Your task to perform on an android device: turn on showing notifications on the lock screen Image 0: 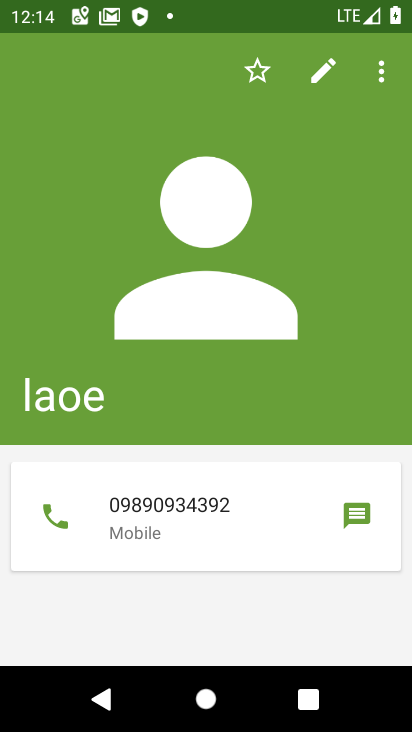
Step 0: press home button
Your task to perform on an android device: turn on showing notifications on the lock screen Image 1: 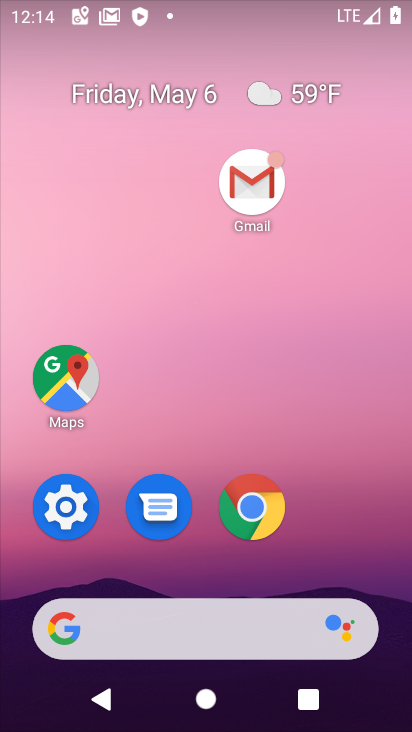
Step 1: drag from (353, 465) to (276, 7)
Your task to perform on an android device: turn on showing notifications on the lock screen Image 2: 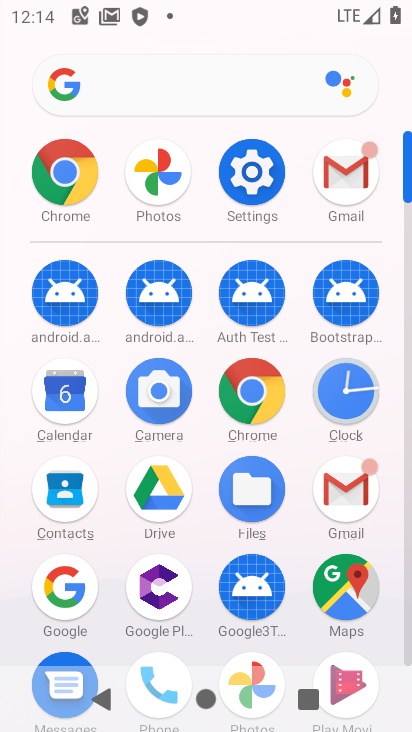
Step 2: click (251, 171)
Your task to perform on an android device: turn on showing notifications on the lock screen Image 3: 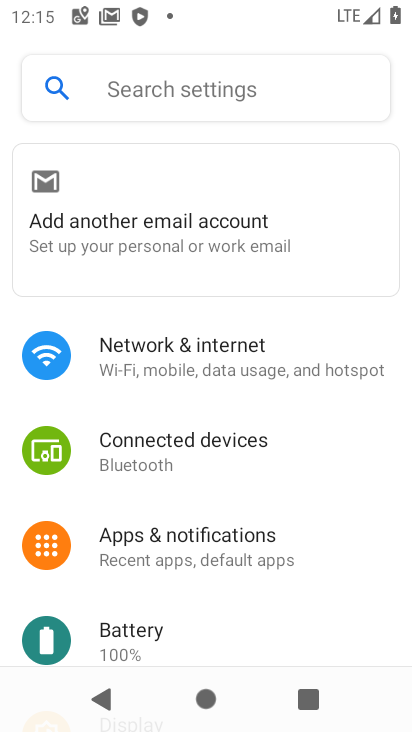
Step 3: drag from (266, 489) to (183, 124)
Your task to perform on an android device: turn on showing notifications on the lock screen Image 4: 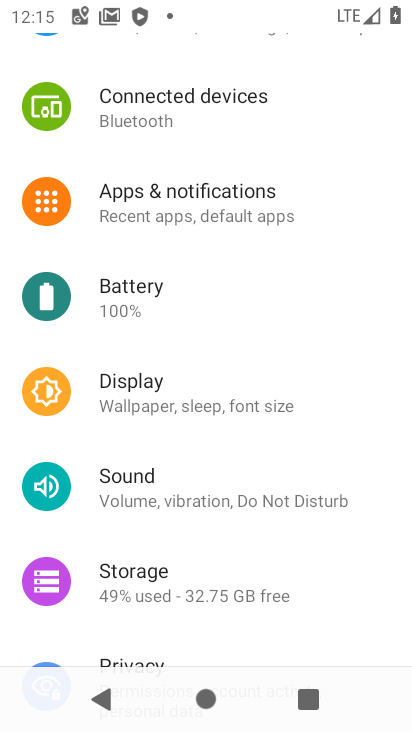
Step 4: click (227, 185)
Your task to perform on an android device: turn on showing notifications on the lock screen Image 5: 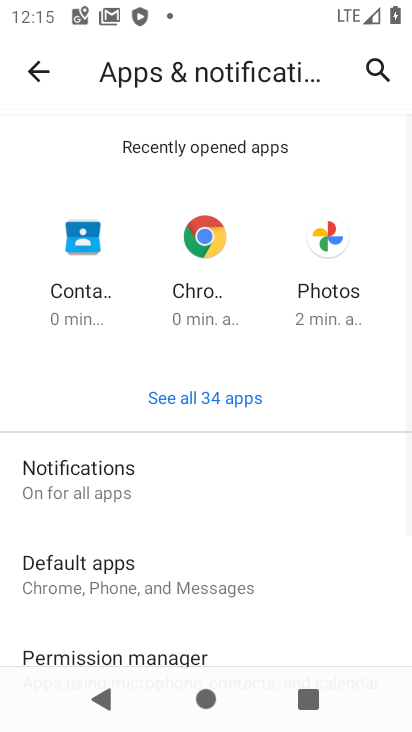
Step 5: click (90, 468)
Your task to perform on an android device: turn on showing notifications on the lock screen Image 6: 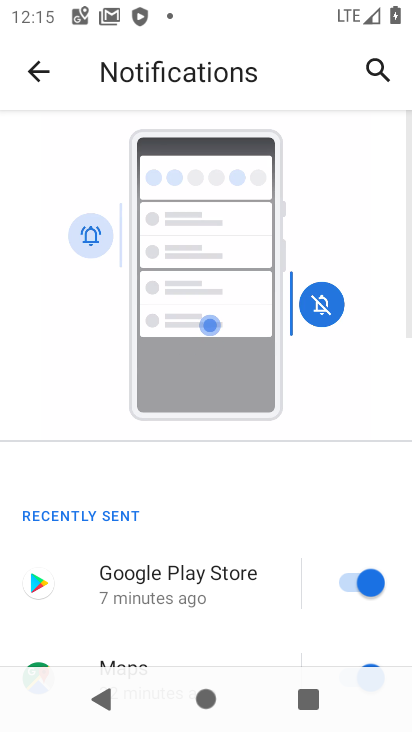
Step 6: drag from (222, 486) to (163, 98)
Your task to perform on an android device: turn on showing notifications on the lock screen Image 7: 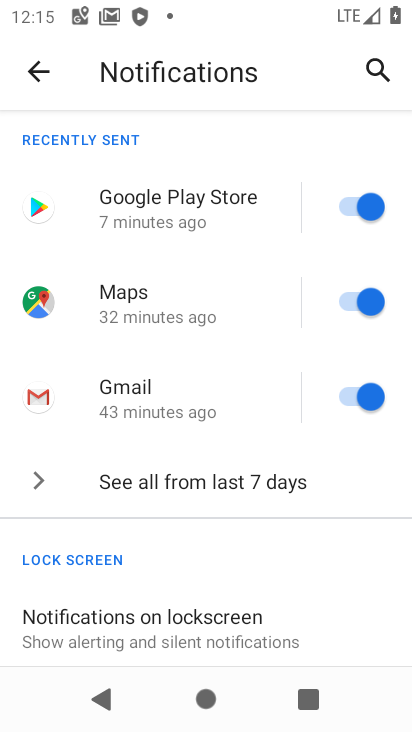
Step 7: drag from (256, 539) to (217, 213)
Your task to perform on an android device: turn on showing notifications on the lock screen Image 8: 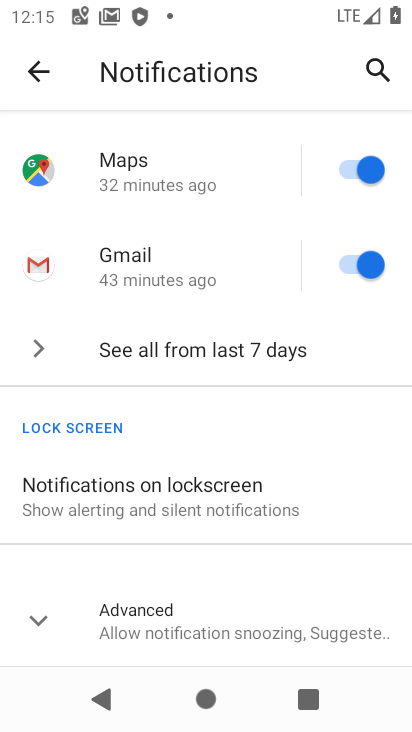
Step 8: click (172, 485)
Your task to perform on an android device: turn on showing notifications on the lock screen Image 9: 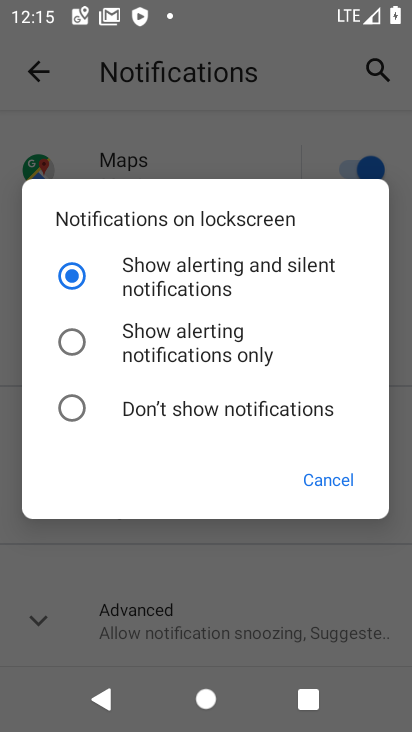
Step 9: task complete